Your task to perform on an android device: Open the calendar app, open the side menu, and click the "Day" option Image 0: 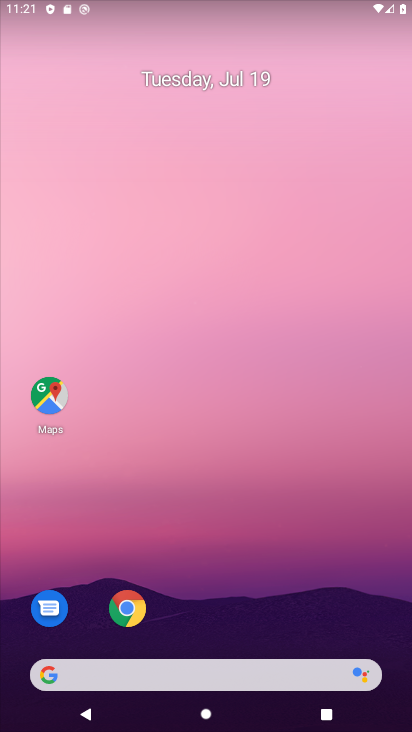
Step 0: press home button
Your task to perform on an android device: Open the calendar app, open the side menu, and click the "Day" option Image 1: 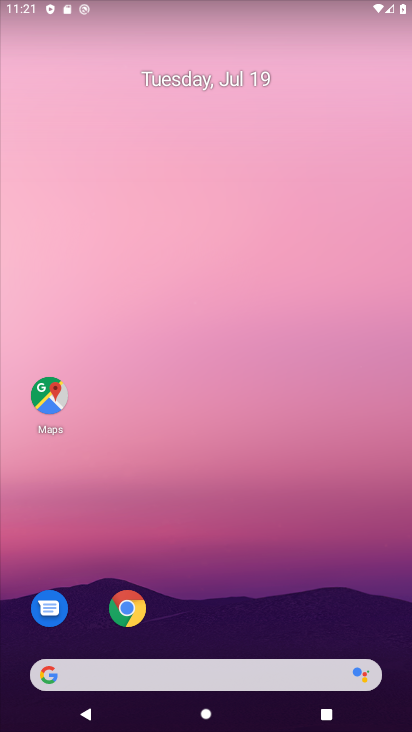
Step 1: press home button
Your task to perform on an android device: Open the calendar app, open the side menu, and click the "Day" option Image 2: 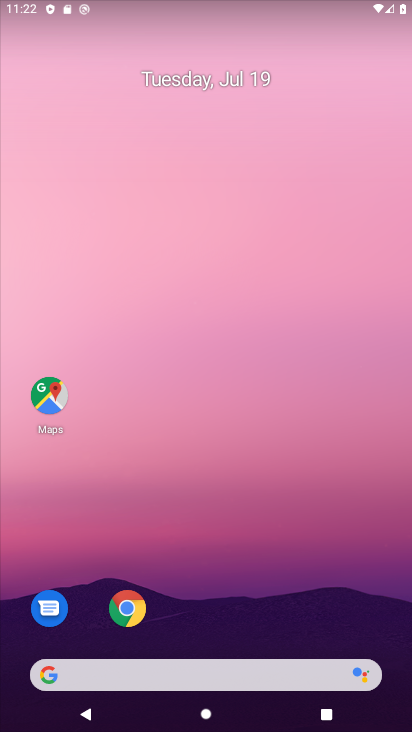
Step 2: drag from (232, 626) to (385, 531)
Your task to perform on an android device: Open the calendar app, open the side menu, and click the "Day" option Image 3: 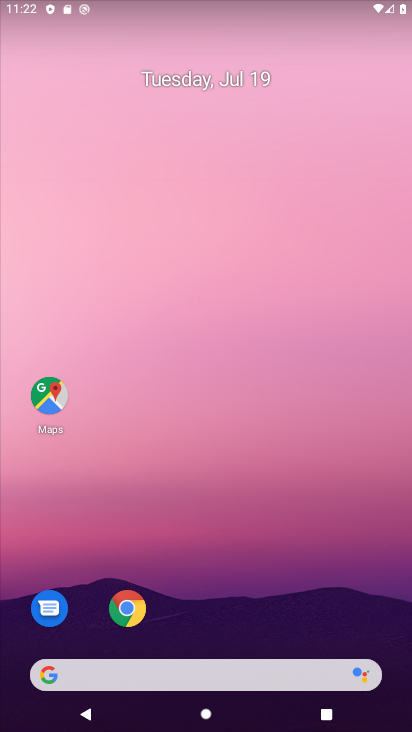
Step 3: drag from (205, 602) to (179, 124)
Your task to perform on an android device: Open the calendar app, open the side menu, and click the "Day" option Image 4: 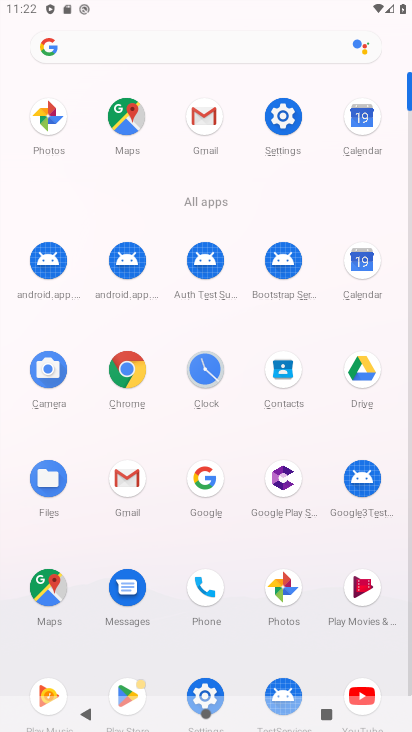
Step 4: click (364, 270)
Your task to perform on an android device: Open the calendar app, open the side menu, and click the "Day" option Image 5: 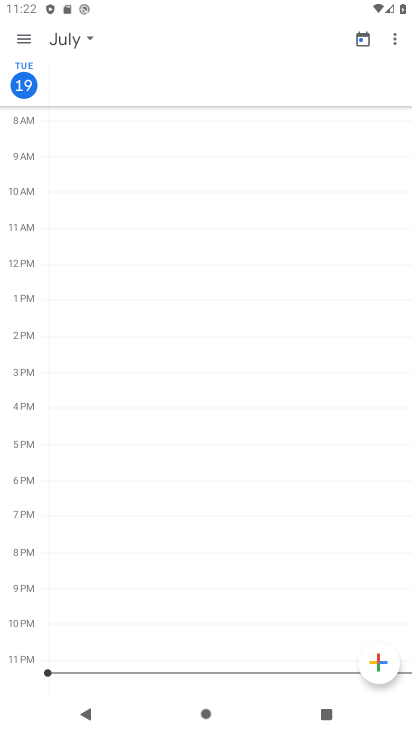
Step 5: click (28, 38)
Your task to perform on an android device: Open the calendar app, open the side menu, and click the "Day" option Image 6: 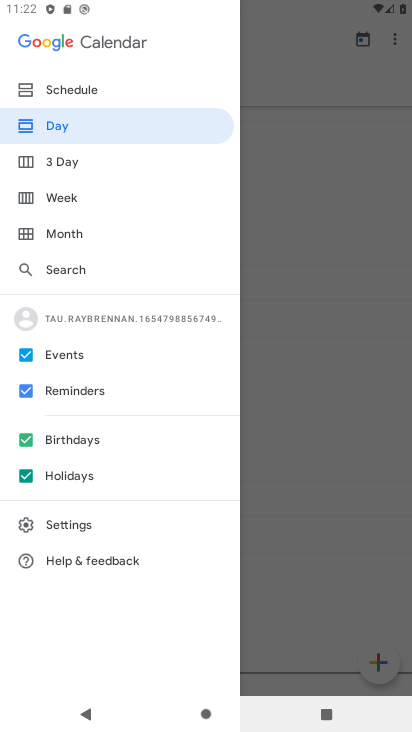
Step 6: click (102, 125)
Your task to perform on an android device: Open the calendar app, open the side menu, and click the "Day" option Image 7: 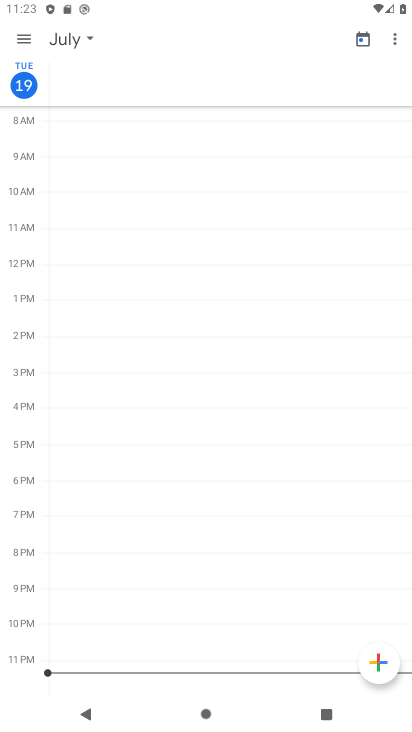
Step 7: task complete